Your task to perform on an android device: find photos in the google photos app Image 0: 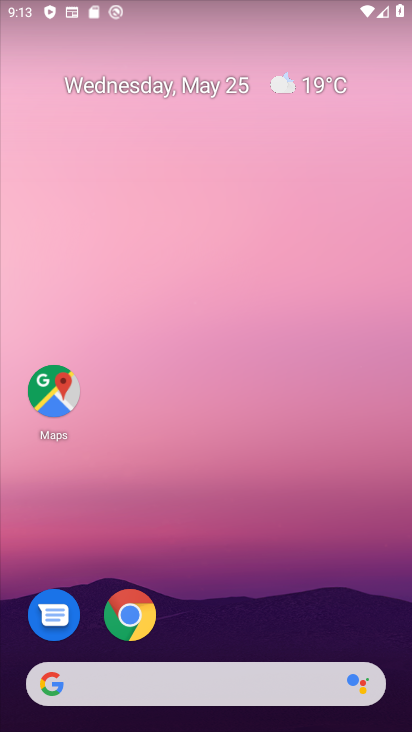
Step 0: drag from (290, 701) to (255, 71)
Your task to perform on an android device: find photos in the google photos app Image 1: 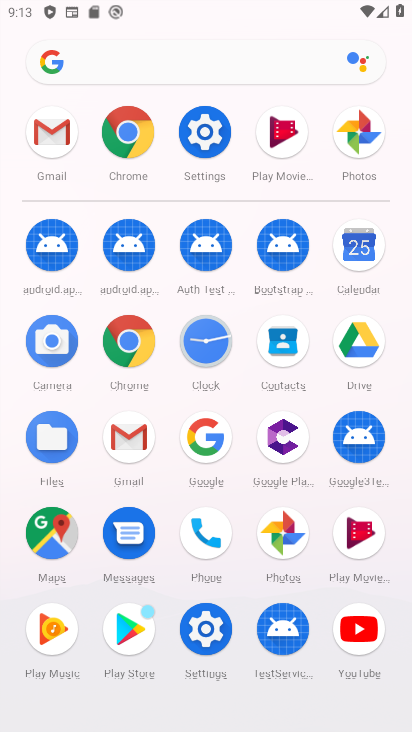
Step 1: click (286, 524)
Your task to perform on an android device: find photos in the google photos app Image 2: 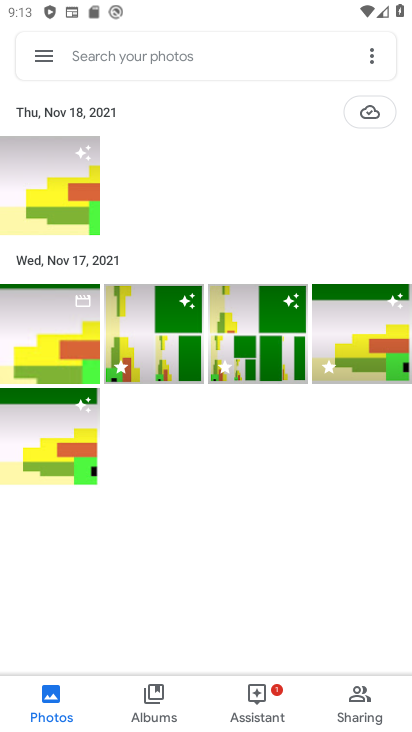
Step 2: task complete